Your task to perform on an android device: Open network settings Image 0: 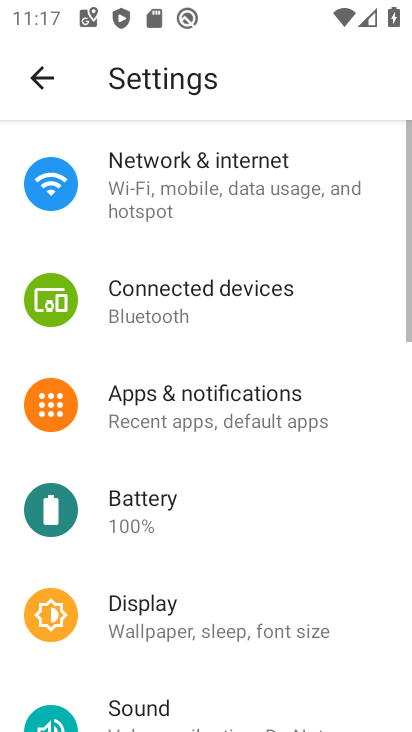
Step 0: drag from (247, 3) to (291, 601)
Your task to perform on an android device: Open network settings Image 1: 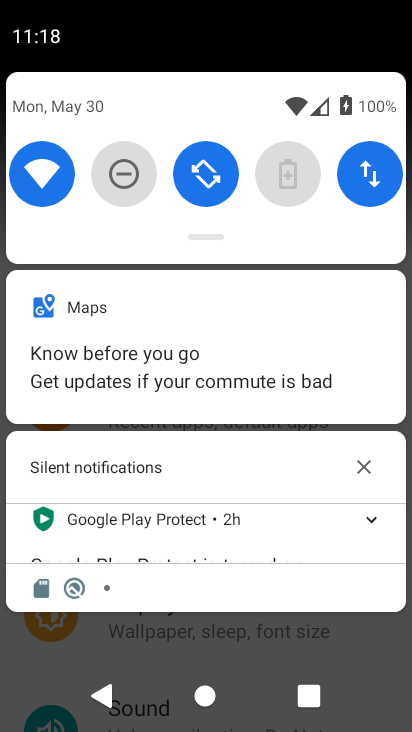
Step 1: drag from (286, 629) to (318, 127)
Your task to perform on an android device: Open network settings Image 2: 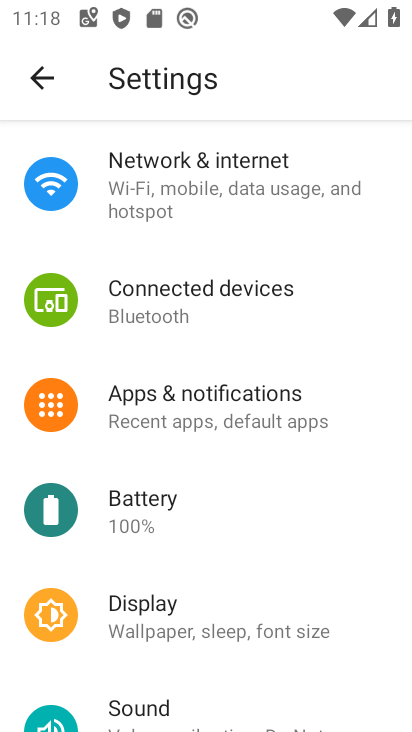
Step 2: click (216, 187)
Your task to perform on an android device: Open network settings Image 3: 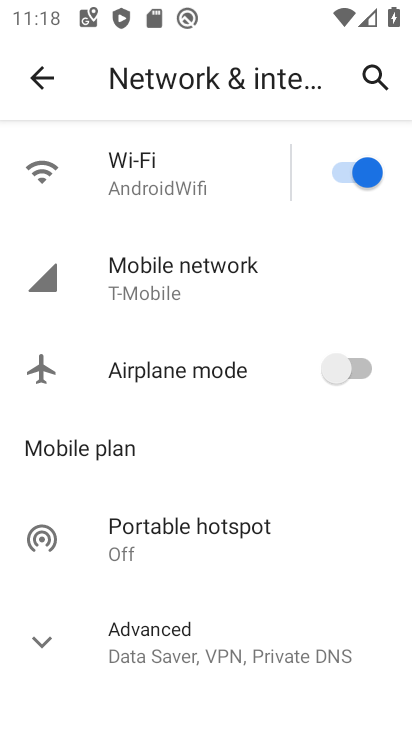
Step 3: task complete